Your task to perform on an android device: Open notification settings Image 0: 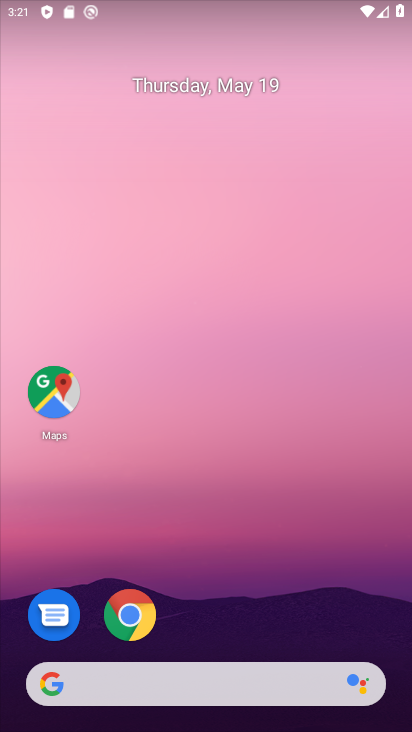
Step 0: drag from (268, 661) to (65, 66)
Your task to perform on an android device: Open notification settings Image 1: 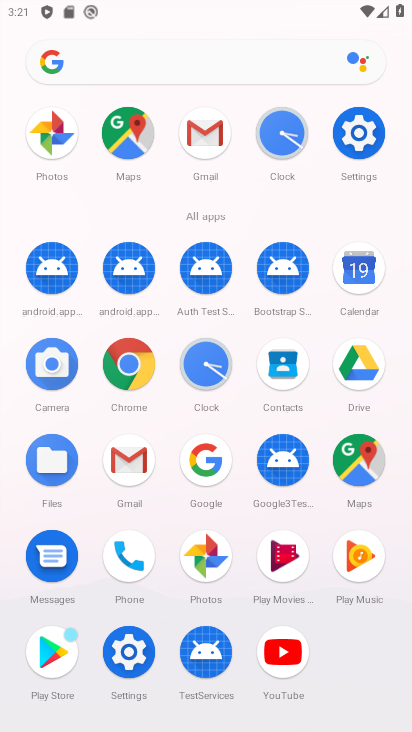
Step 1: drag from (310, 661) to (76, 32)
Your task to perform on an android device: Open notification settings Image 2: 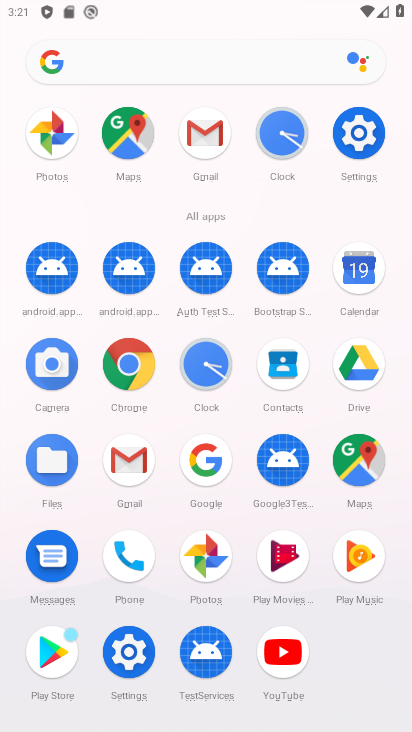
Step 2: click (337, 122)
Your task to perform on an android device: Open notification settings Image 3: 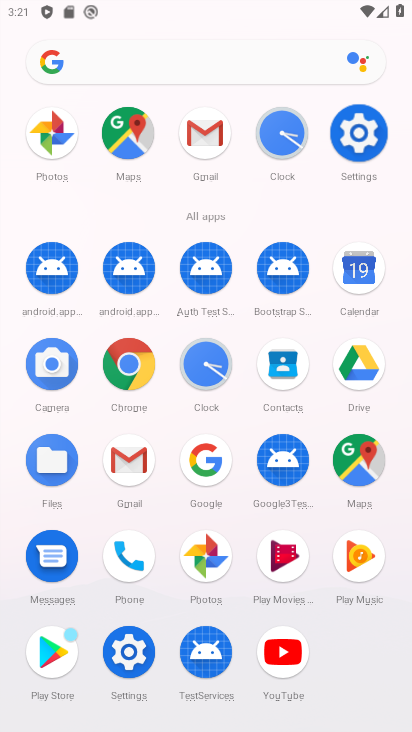
Step 3: click (344, 127)
Your task to perform on an android device: Open notification settings Image 4: 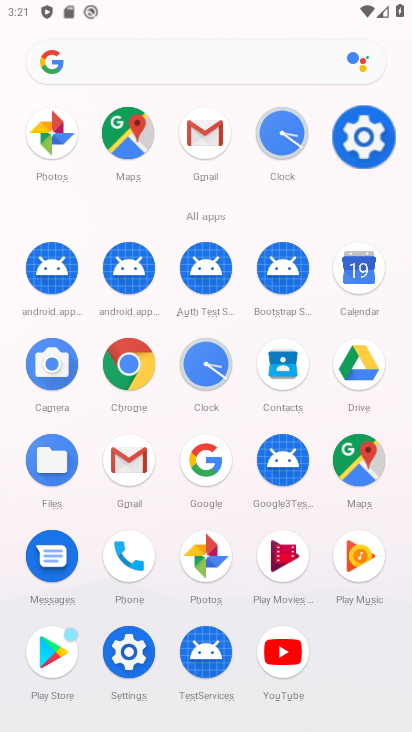
Step 4: click (348, 127)
Your task to perform on an android device: Open notification settings Image 5: 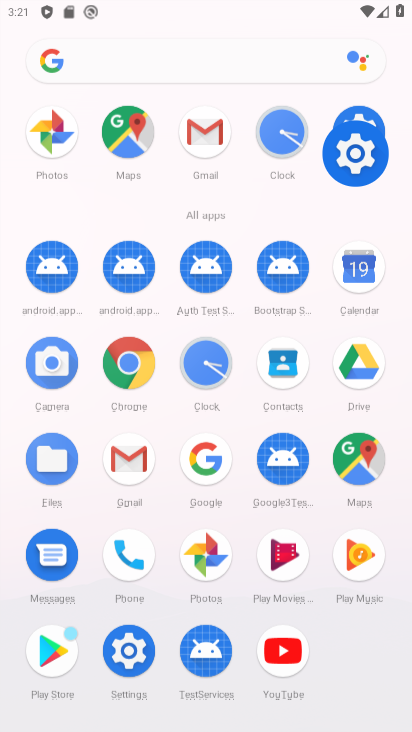
Step 5: click (351, 129)
Your task to perform on an android device: Open notification settings Image 6: 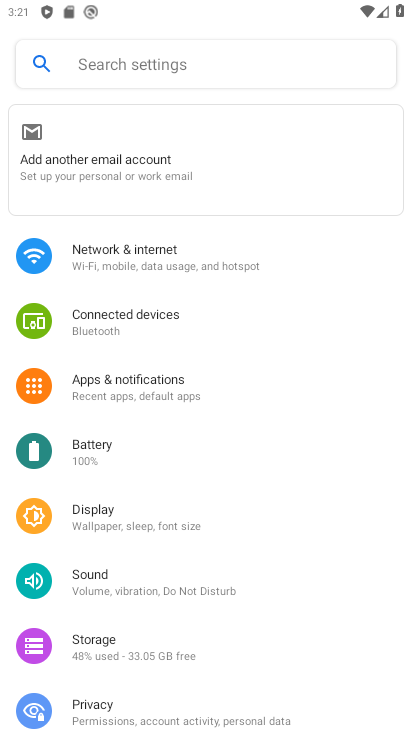
Step 6: click (130, 390)
Your task to perform on an android device: Open notification settings Image 7: 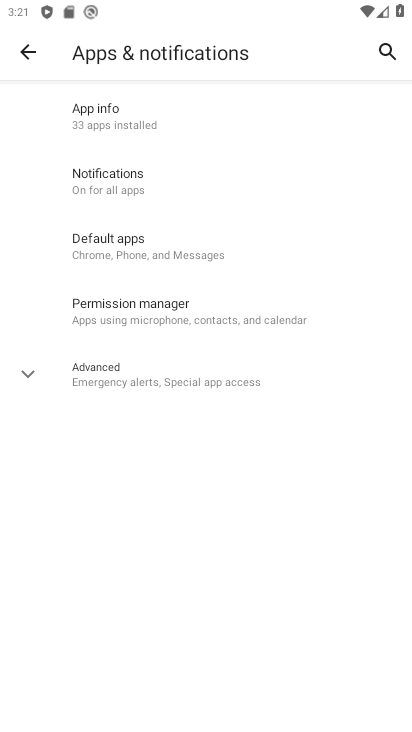
Step 7: task complete